Your task to perform on an android device: turn on sleep mode Image 0: 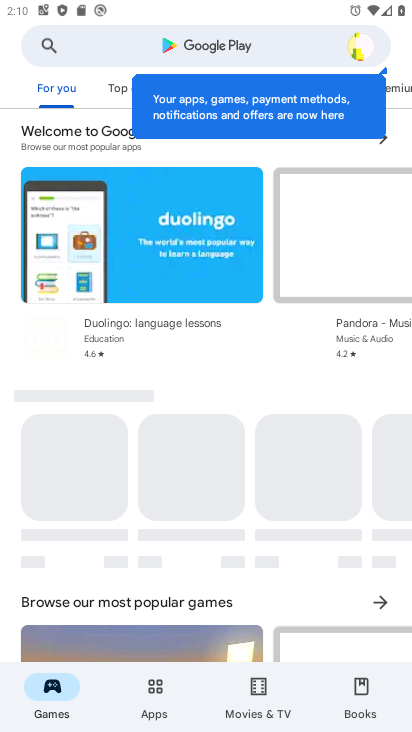
Step 0: press home button
Your task to perform on an android device: turn on sleep mode Image 1: 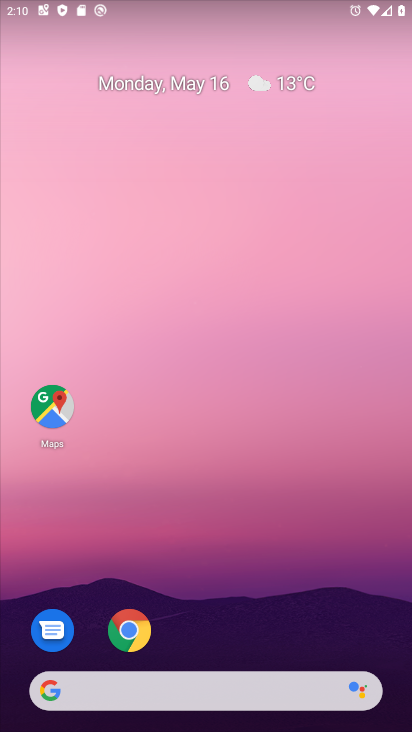
Step 1: drag from (254, 602) to (249, 260)
Your task to perform on an android device: turn on sleep mode Image 2: 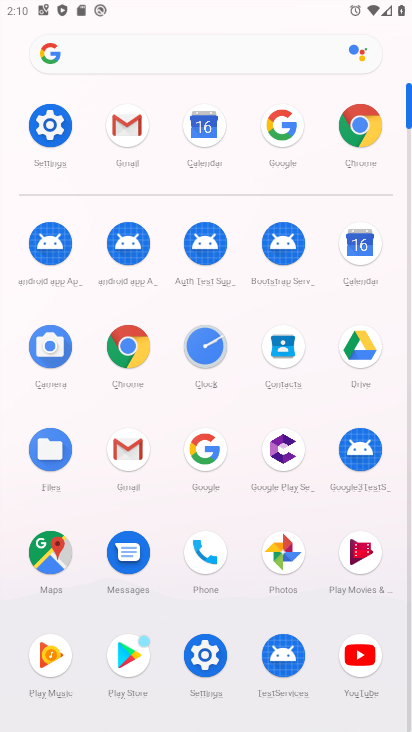
Step 2: click (34, 124)
Your task to perform on an android device: turn on sleep mode Image 3: 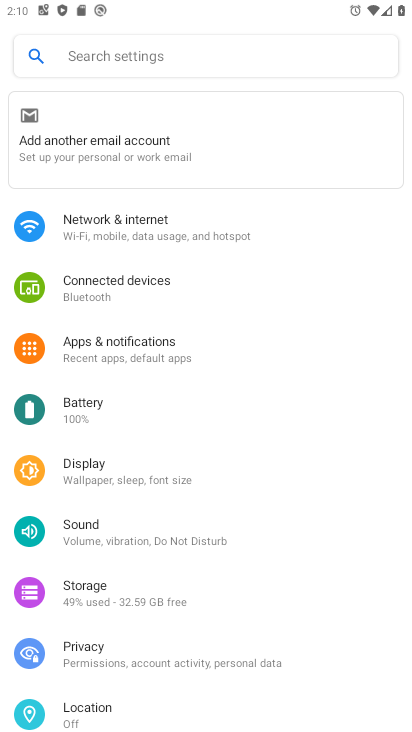
Step 3: click (135, 459)
Your task to perform on an android device: turn on sleep mode Image 4: 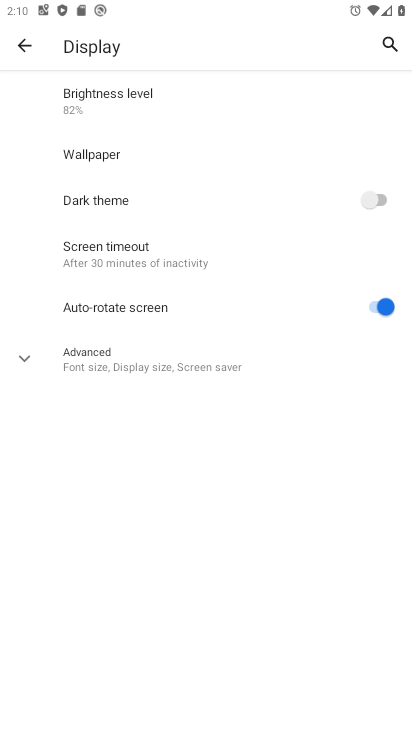
Step 4: click (96, 352)
Your task to perform on an android device: turn on sleep mode Image 5: 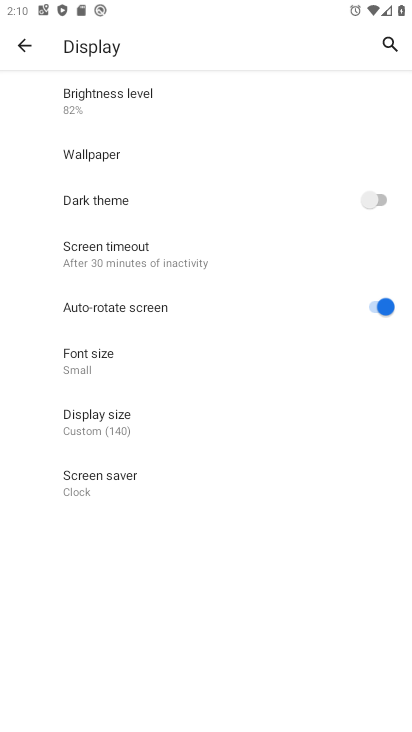
Step 5: press back button
Your task to perform on an android device: turn on sleep mode Image 6: 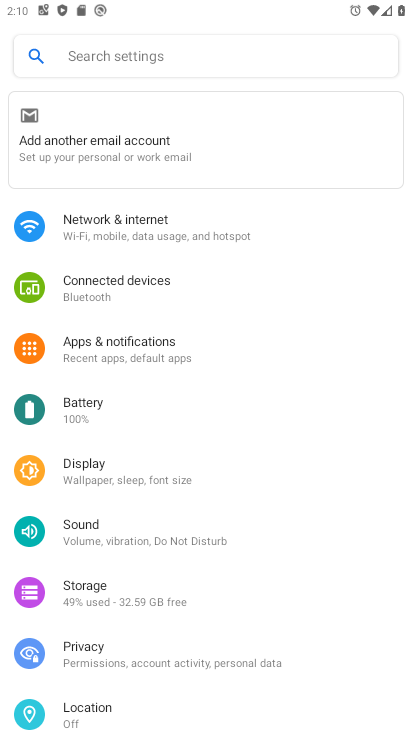
Step 6: drag from (206, 626) to (202, 362)
Your task to perform on an android device: turn on sleep mode Image 7: 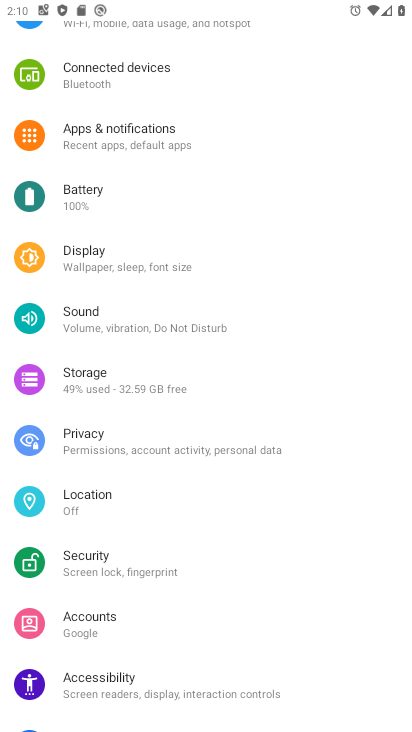
Step 7: click (152, 200)
Your task to perform on an android device: turn on sleep mode Image 8: 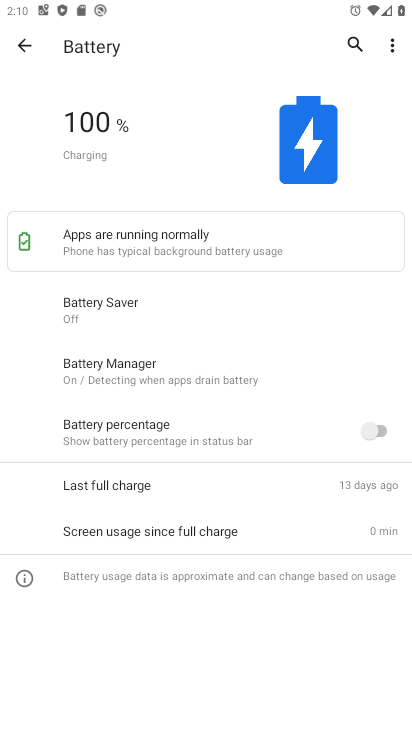
Step 8: task complete